Your task to perform on an android device: Show me popular games on the Play Store Image 0: 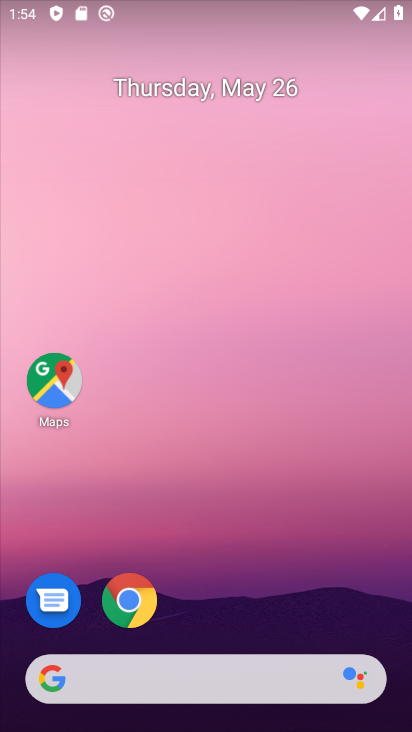
Step 0: drag from (220, 533) to (152, 56)
Your task to perform on an android device: Show me popular games on the Play Store Image 1: 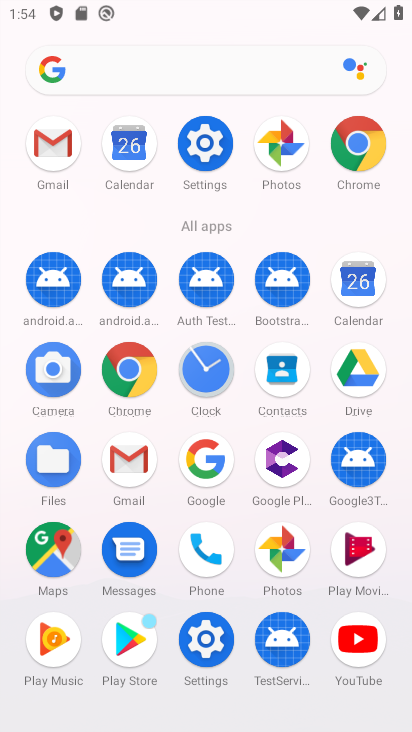
Step 1: click (122, 634)
Your task to perform on an android device: Show me popular games on the Play Store Image 2: 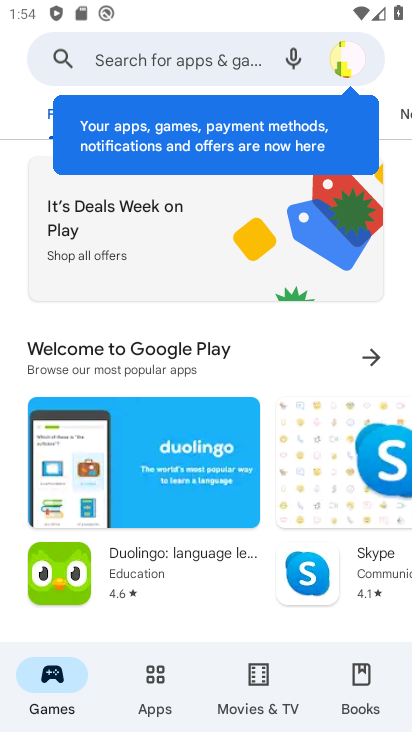
Step 2: task complete